Your task to perform on an android device: turn on the 24-hour format for clock Image 0: 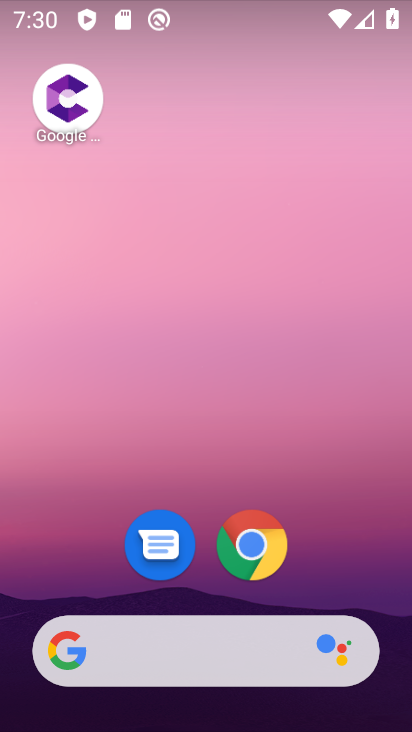
Step 0: drag from (347, 604) to (325, 145)
Your task to perform on an android device: turn on the 24-hour format for clock Image 1: 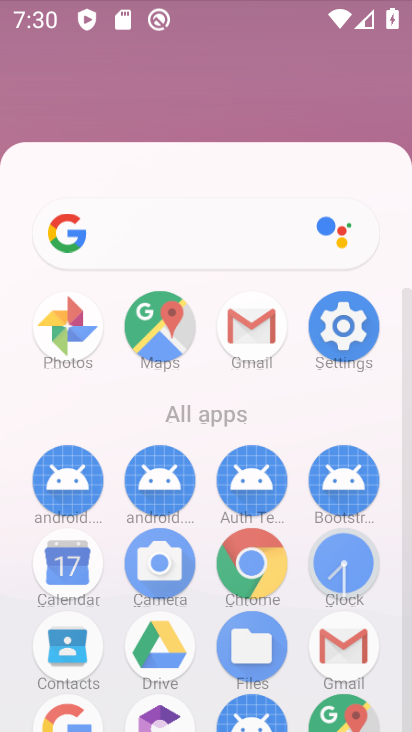
Step 1: click (327, 120)
Your task to perform on an android device: turn on the 24-hour format for clock Image 2: 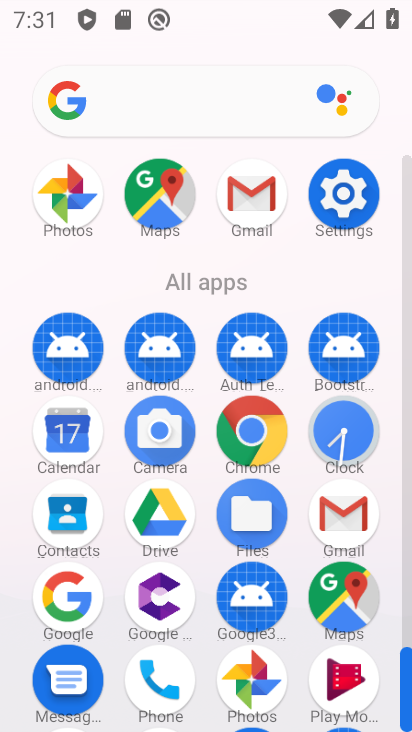
Step 2: click (368, 206)
Your task to perform on an android device: turn on the 24-hour format for clock Image 3: 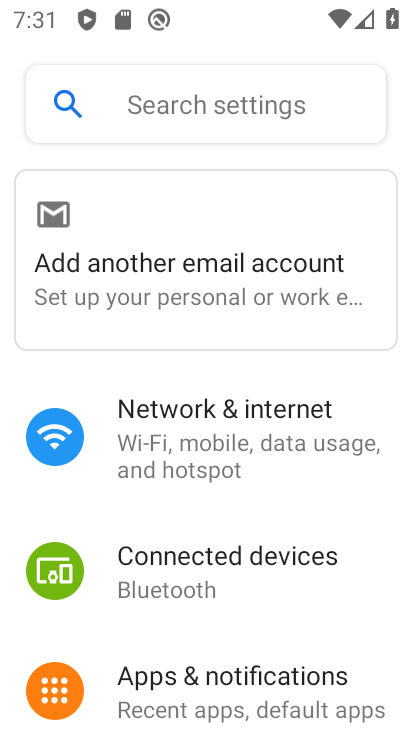
Step 3: drag from (304, 669) to (298, 35)
Your task to perform on an android device: turn on the 24-hour format for clock Image 4: 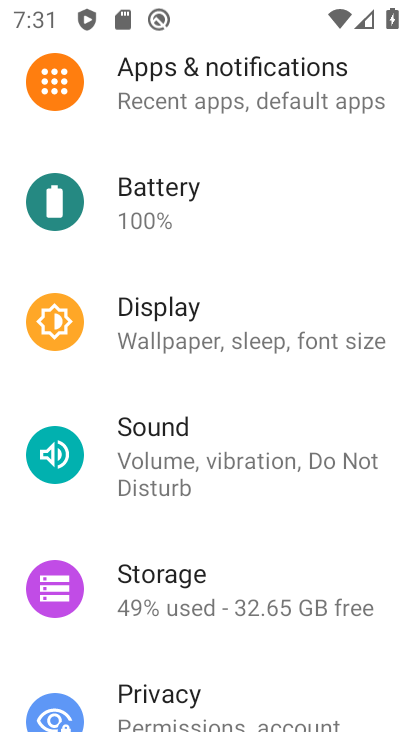
Step 4: drag from (296, 612) to (290, 0)
Your task to perform on an android device: turn on the 24-hour format for clock Image 5: 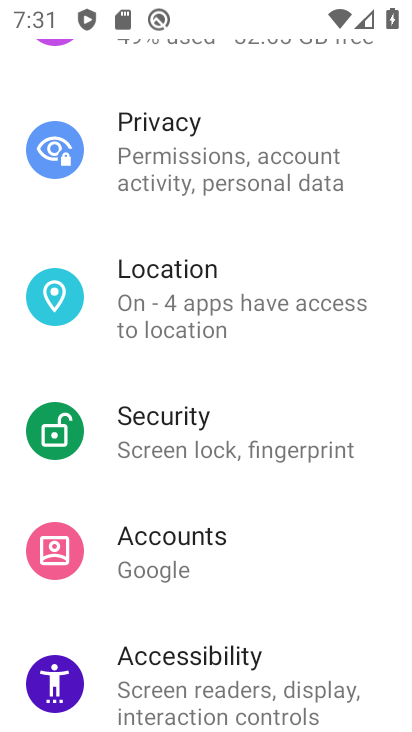
Step 5: drag from (221, 673) to (310, 158)
Your task to perform on an android device: turn on the 24-hour format for clock Image 6: 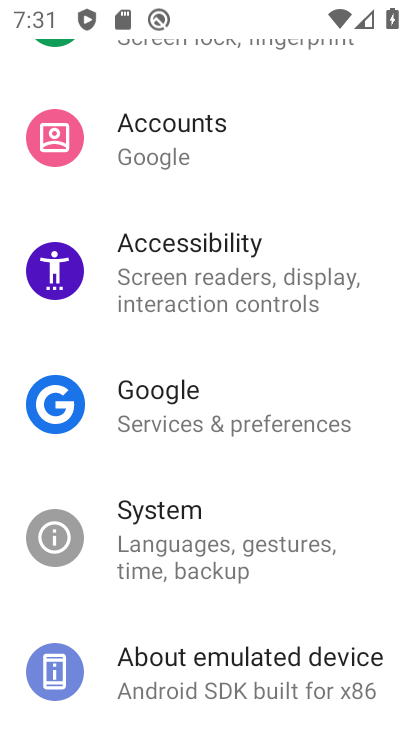
Step 6: drag from (301, 678) to (292, 229)
Your task to perform on an android device: turn on the 24-hour format for clock Image 7: 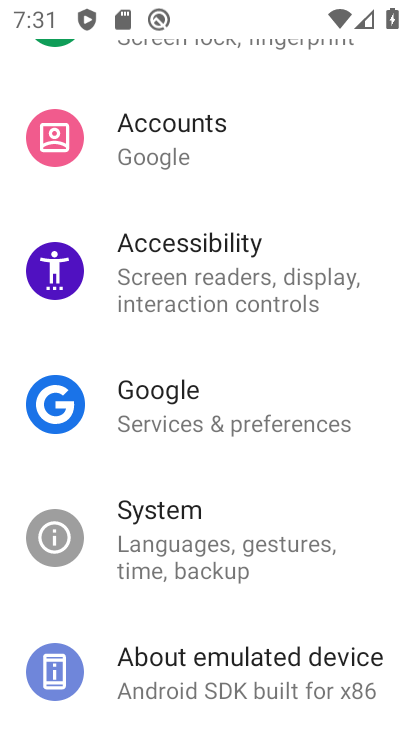
Step 7: click (227, 560)
Your task to perform on an android device: turn on the 24-hour format for clock Image 8: 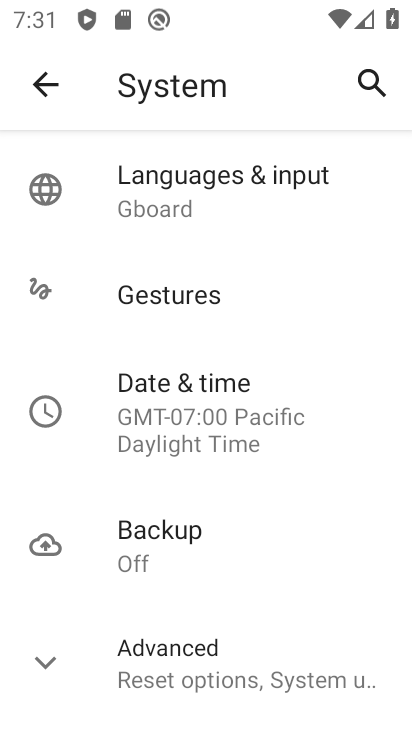
Step 8: click (256, 418)
Your task to perform on an android device: turn on the 24-hour format for clock Image 9: 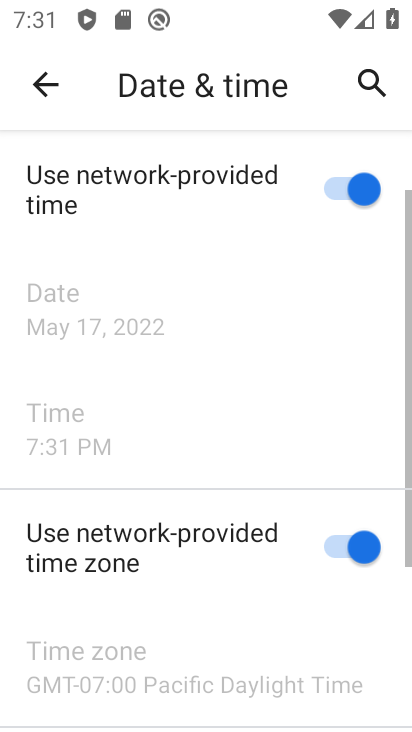
Step 9: drag from (245, 644) to (260, 136)
Your task to perform on an android device: turn on the 24-hour format for clock Image 10: 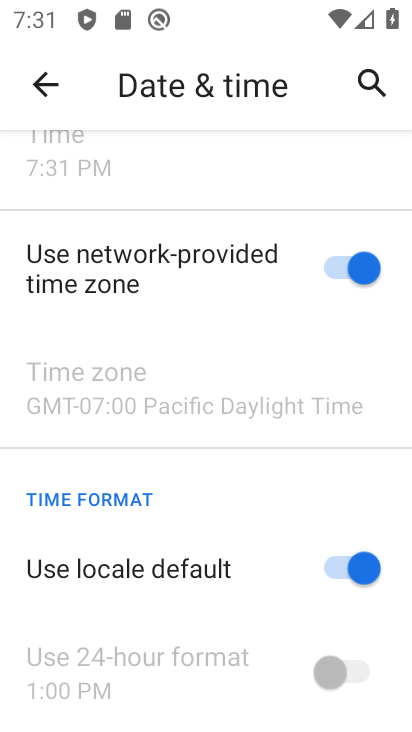
Step 10: click (355, 573)
Your task to perform on an android device: turn on the 24-hour format for clock Image 11: 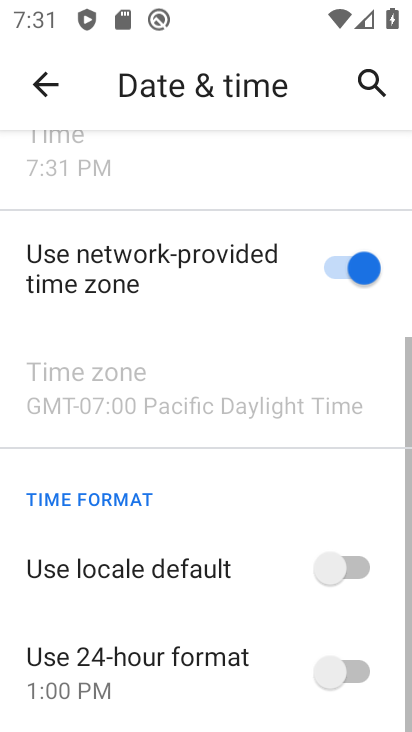
Step 11: click (358, 669)
Your task to perform on an android device: turn on the 24-hour format for clock Image 12: 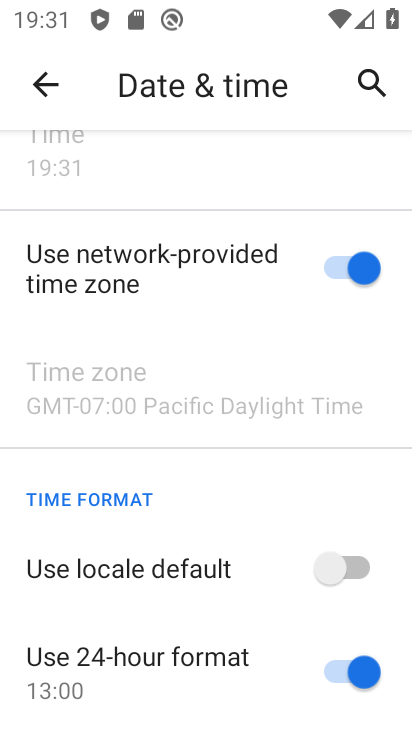
Step 12: task complete